Your task to perform on an android device: turn off sleep mode Image 0: 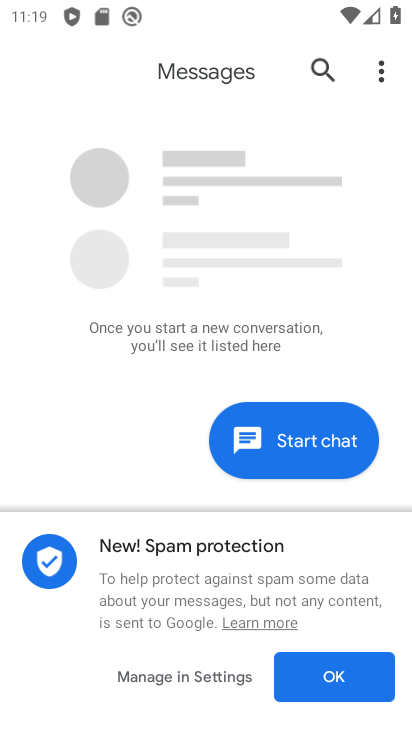
Step 0: press home button
Your task to perform on an android device: turn off sleep mode Image 1: 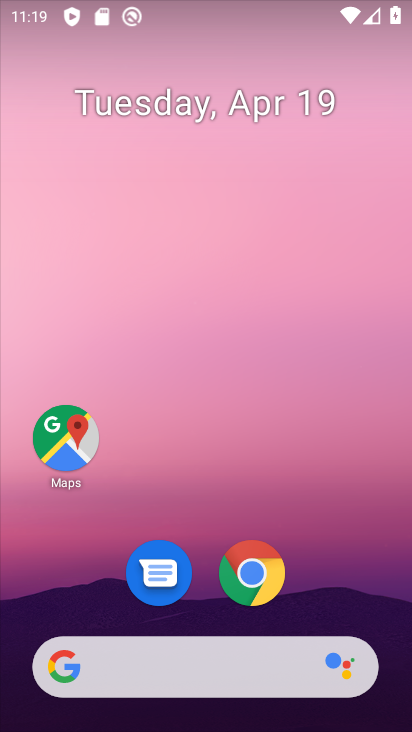
Step 1: drag from (322, 574) to (323, 253)
Your task to perform on an android device: turn off sleep mode Image 2: 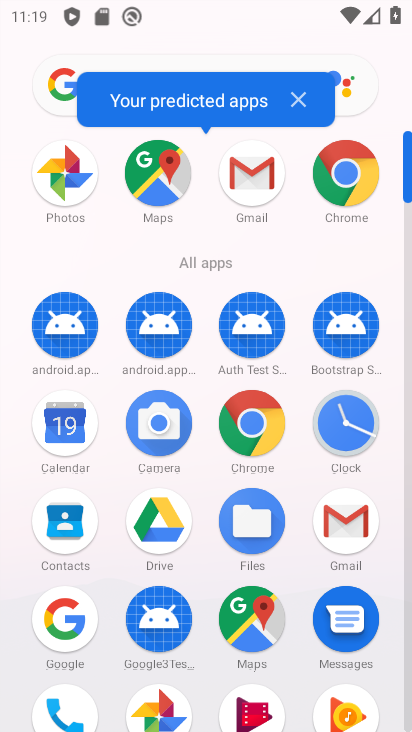
Step 2: drag from (299, 641) to (297, 315)
Your task to perform on an android device: turn off sleep mode Image 3: 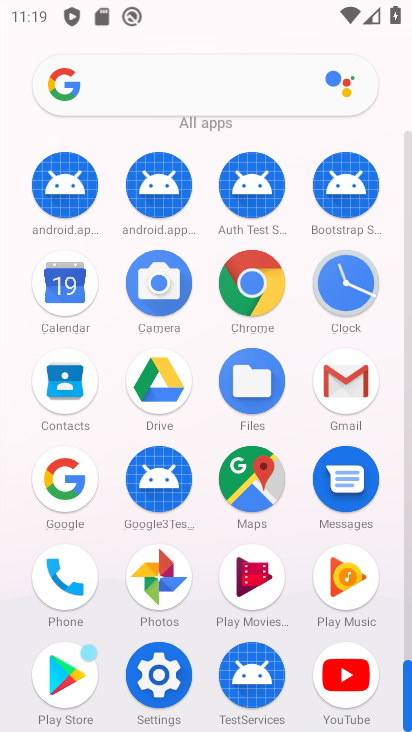
Step 3: click (174, 687)
Your task to perform on an android device: turn off sleep mode Image 4: 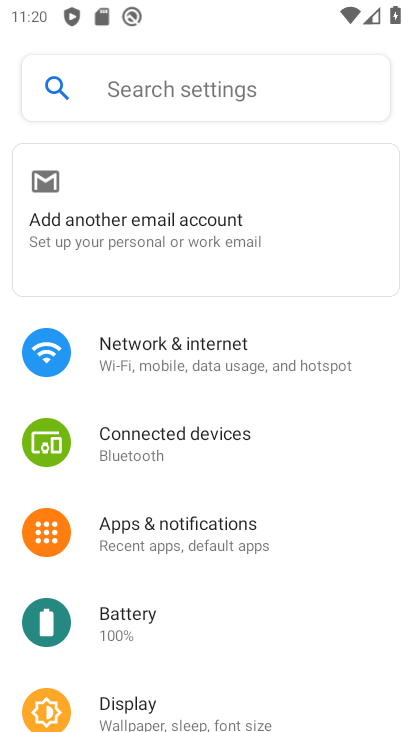
Step 4: drag from (201, 651) to (232, 375)
Your task to perform on an android device: turn off sleep mode Image 5: 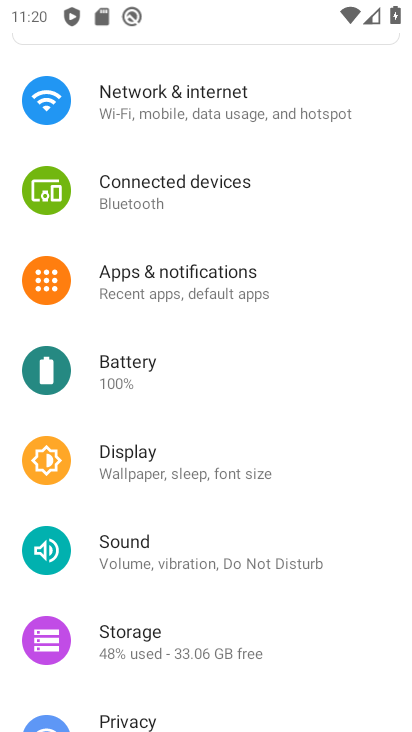
Step 5: click (230, 472)
Your task to perform on an android device: turn off sleep mode Image 6: 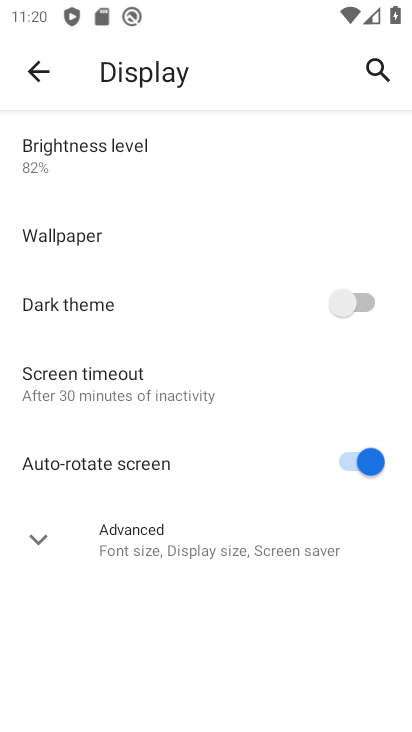
Step 6: task complete